Your task to perform on an android device: Open maps Image 0: 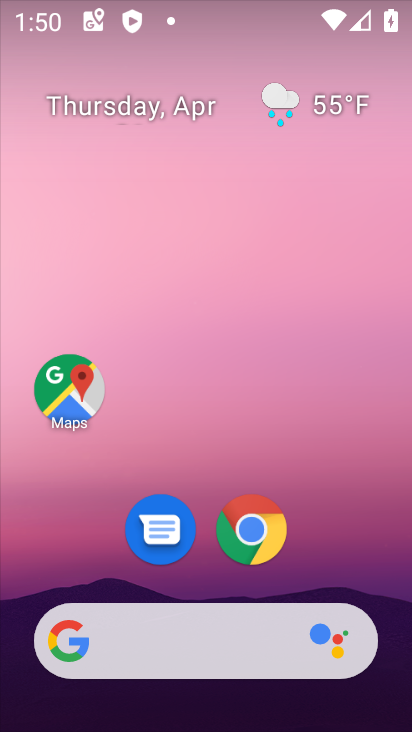
Step 0: click (54, 398)
Your task to perform on an android device: Open maps Image 1: 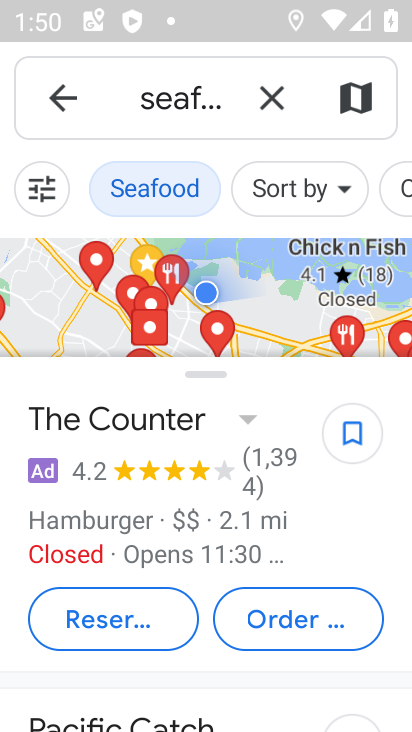
Step 1: task complete